Your task to perform on an android device: turn smart compose on in the gmail app Image 0: 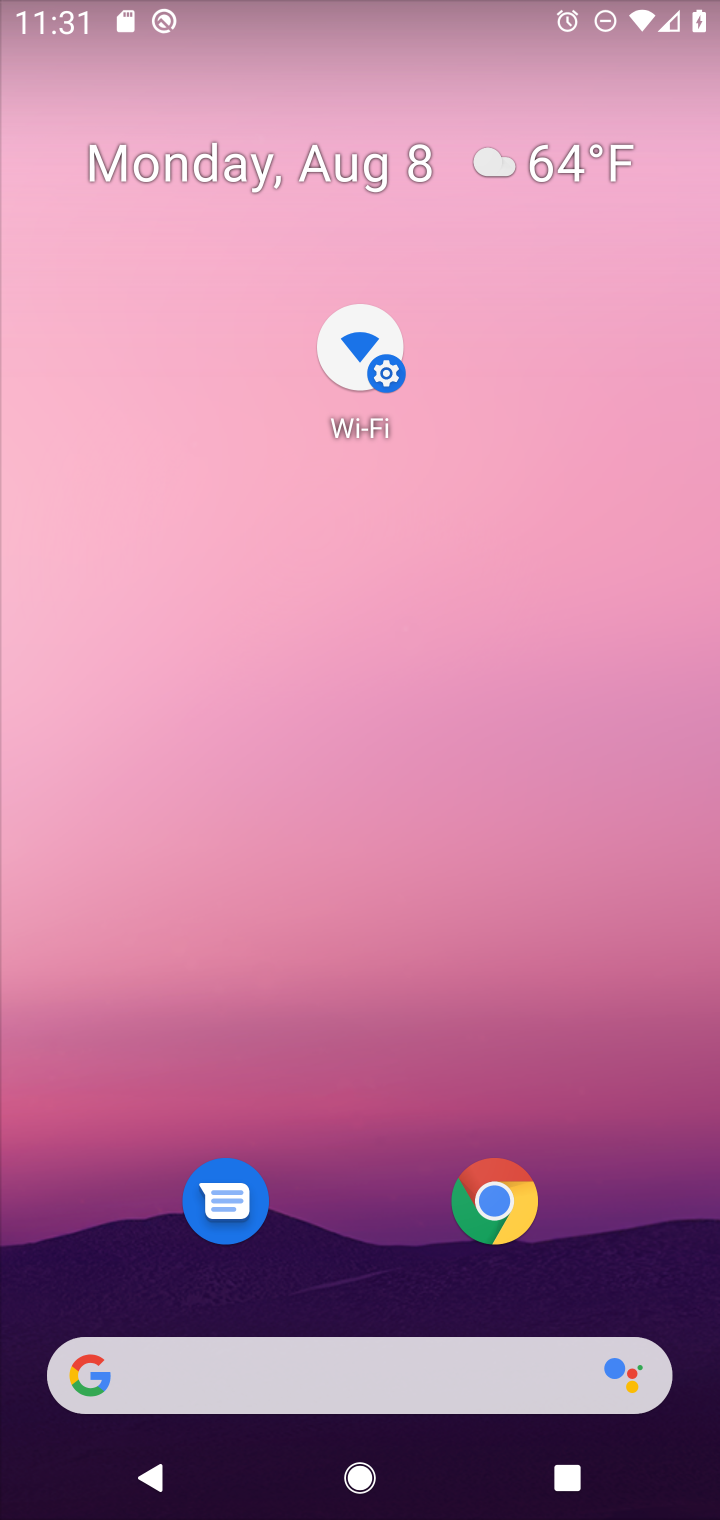
Step 0: press home button
Your task to perform on an android device: turn smart compose on in the gmail app Image 1: 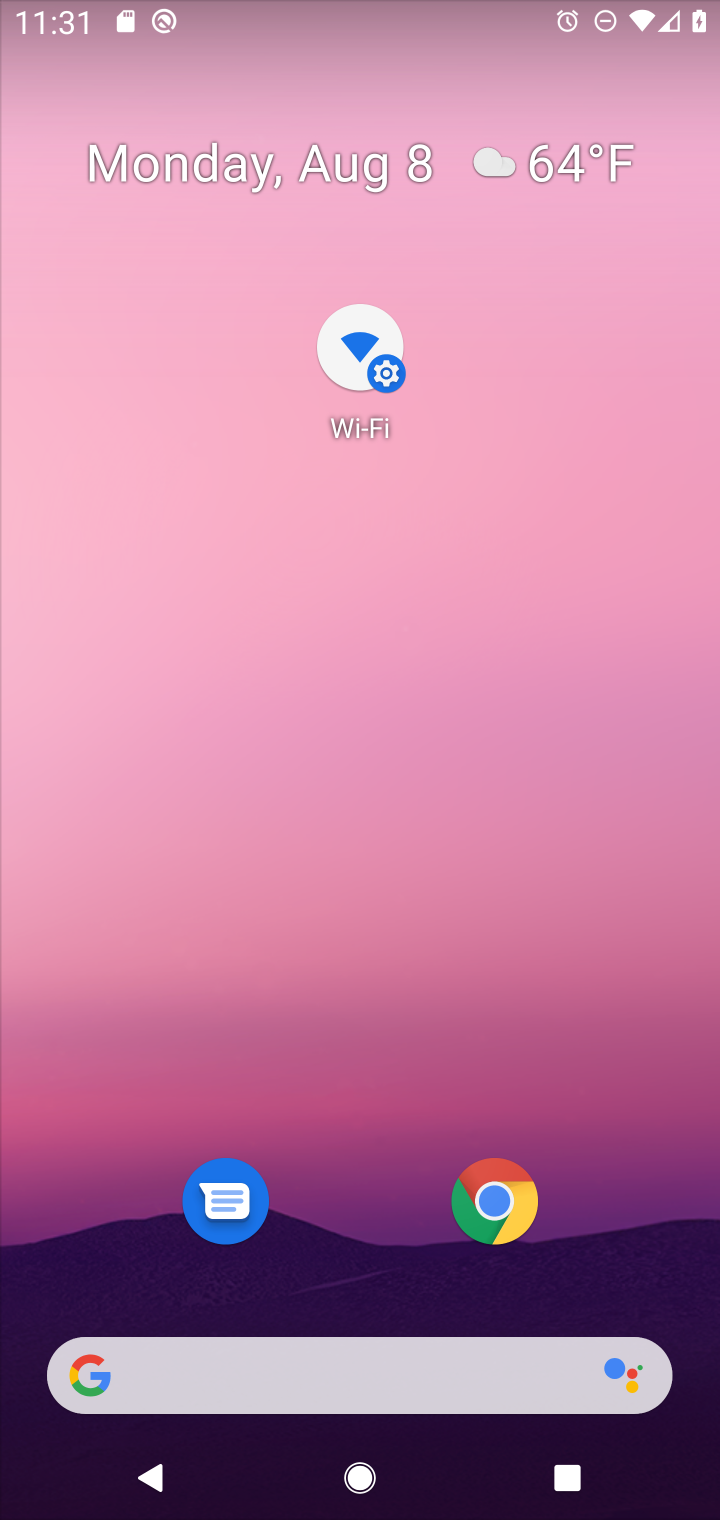
Step 1: drag from (348, 1258) to (534, 210)
Your task to perform on an android device: turn smart compose on in the gmail app Image 2: 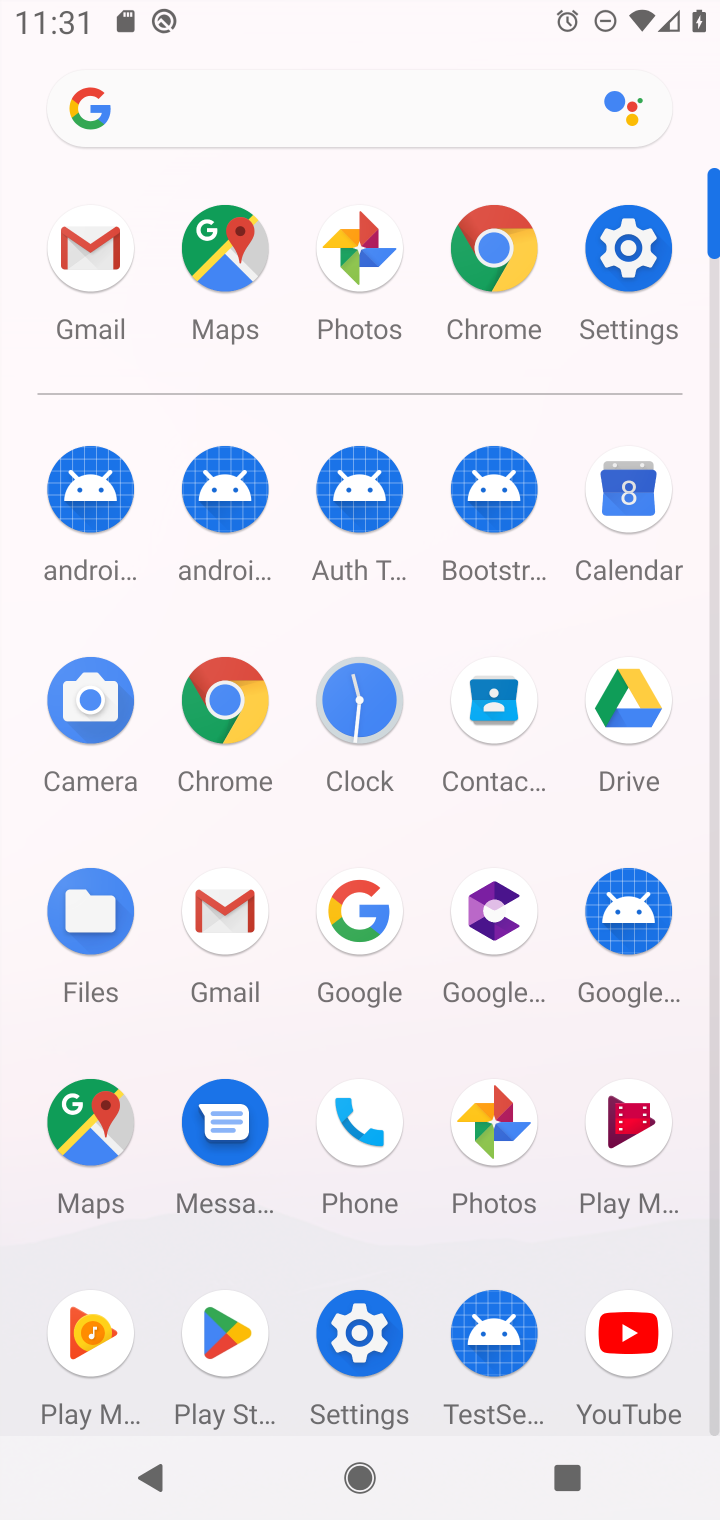
Step 2: click (218, 918)
Your task to perform on an android device: turn smart compose on in the gmail app Image 3: 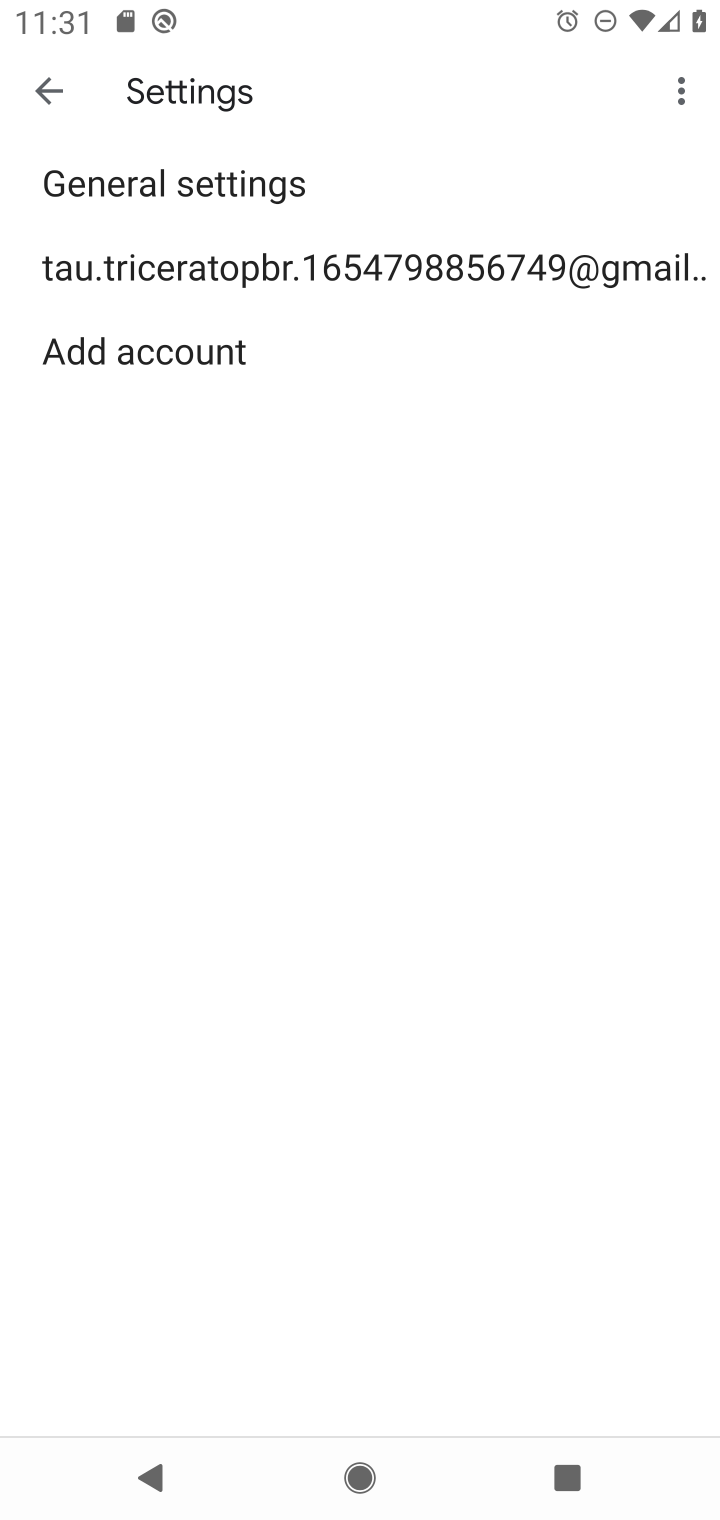
Step 3: click (301, 262)
Your task to perform on an android device: turn smart compose on in the gmail app Image 4: 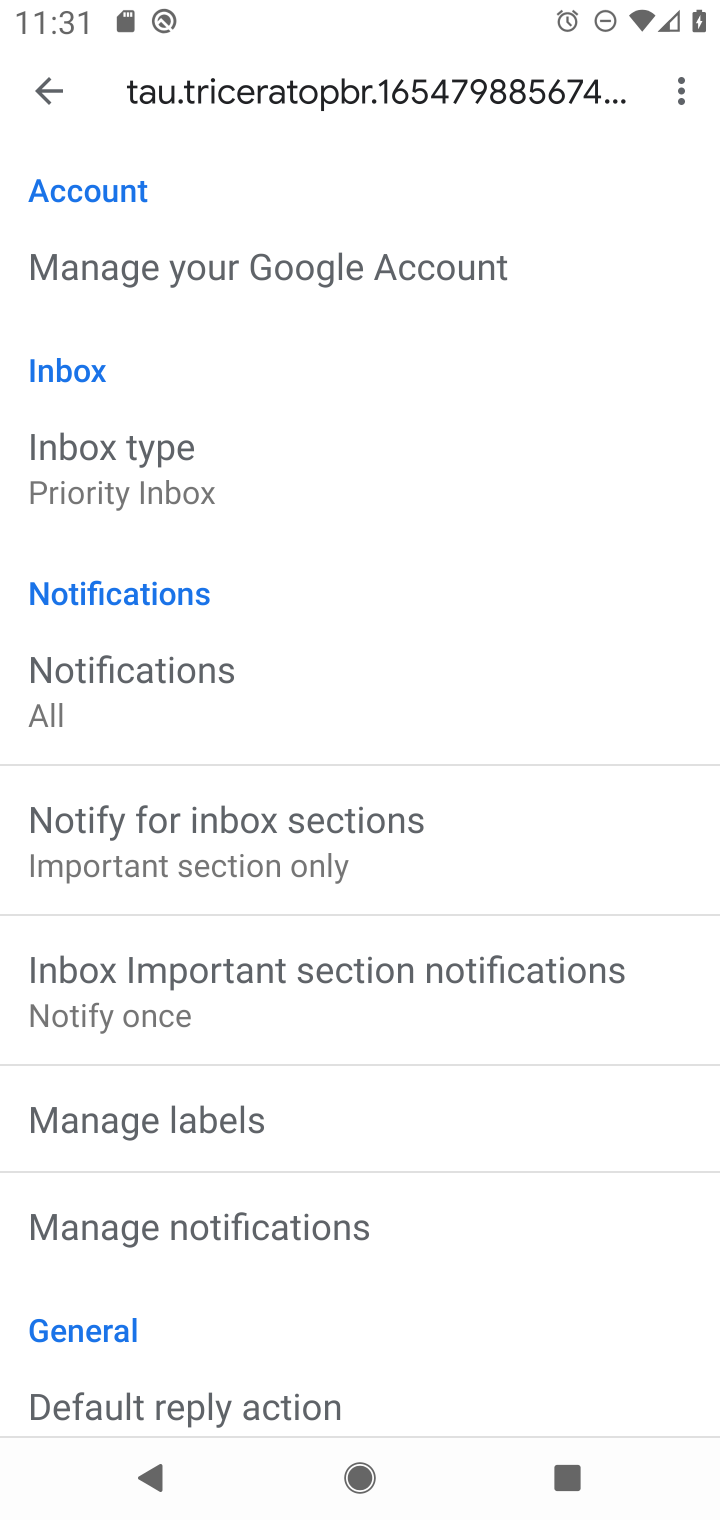
Step 4: task complete